Your task to perform on an android device: Open settings Image 0: 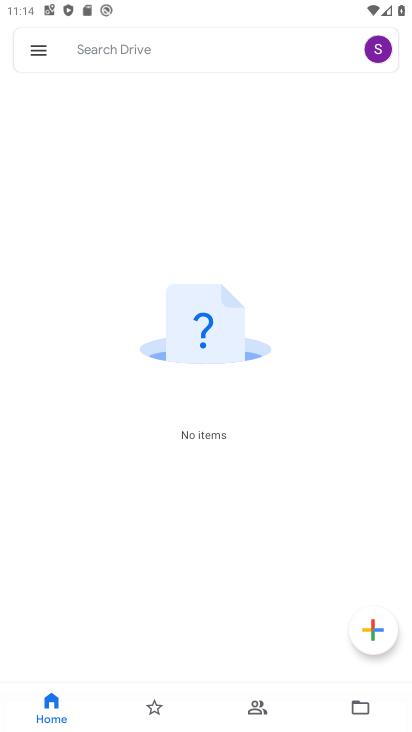
Step 0: press home button
Your task to perform on an android device: Open settings Image 1: 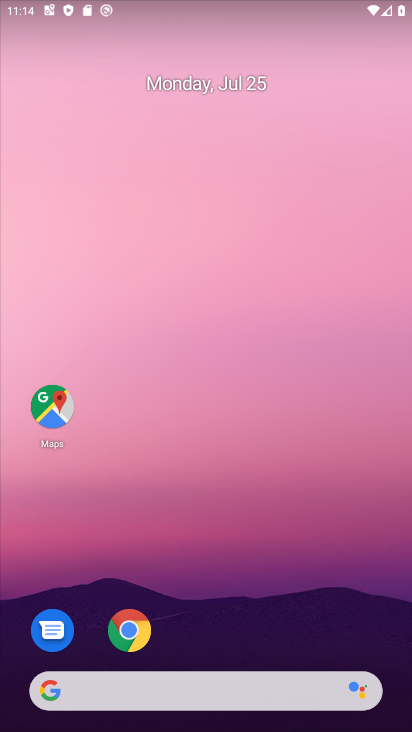
Step 1: drag from (362, 548) to (376, 112)
Your task to perform on an android device: Open settings Image 2: 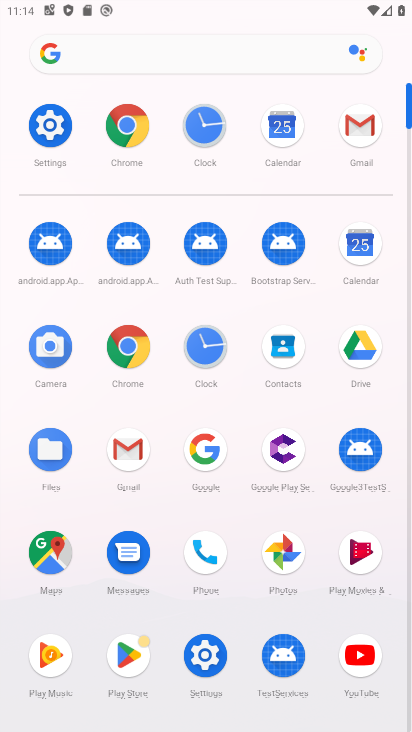
Step 2: click (47, 129)
Your task to perform on an android device: Open settings Image 3: 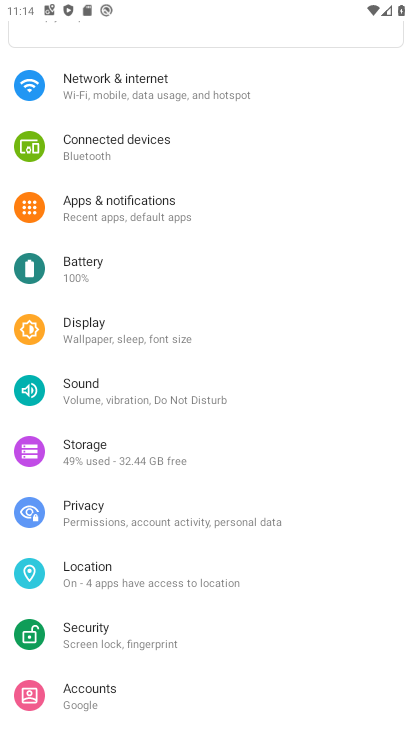
Step 3: task complete